Your task to perform on an android device: Open privacy settings Image 0: 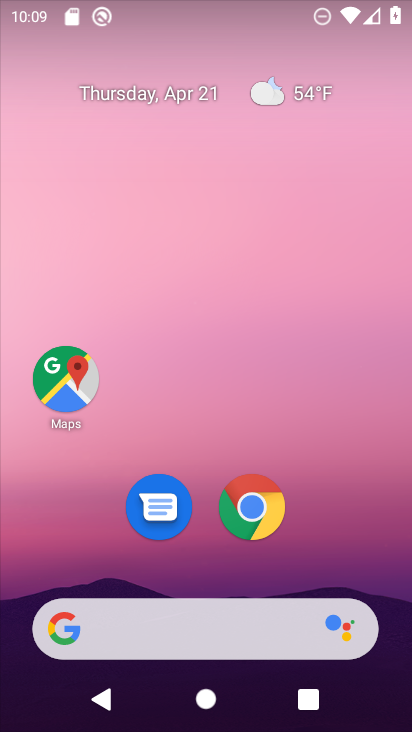
Step 0: drag from (205, 599) to (172, 347)
Your task to perform on an android device: Open privacy settings Image 1: 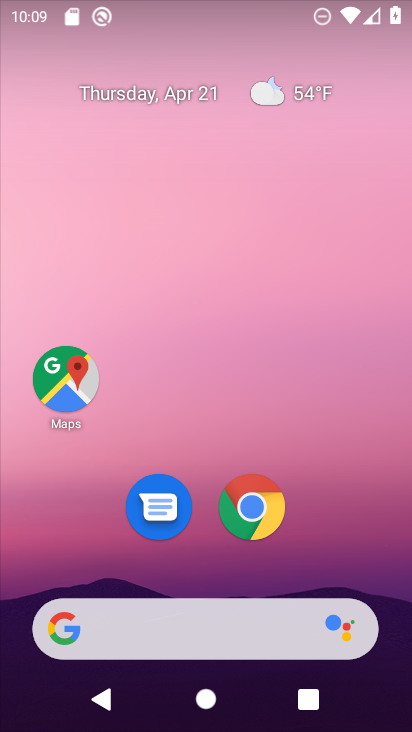
Step 1: click (184, 369)
Your task to perform on an android device: Open privacy settings Image 2: 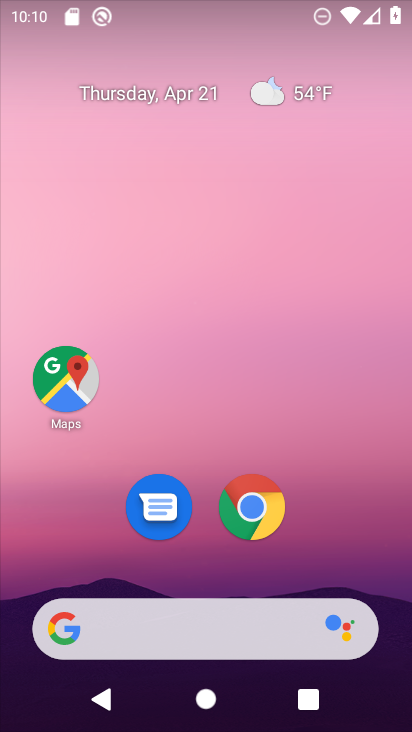
Step 2: drag from (176, 594) to (177, 175)
Your task to perform on an android device: Open privacy settings Image 3: 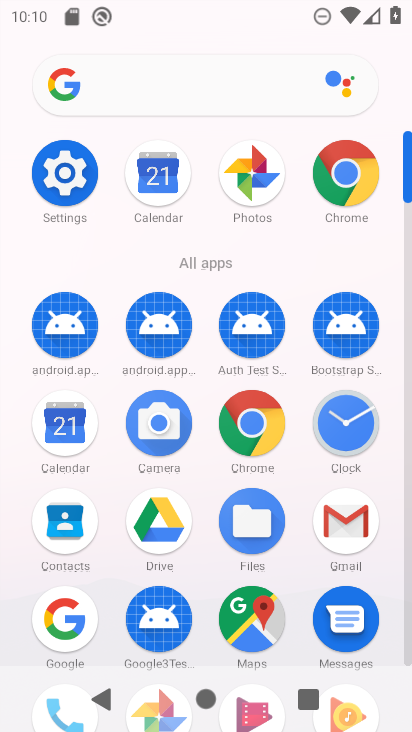
Step 3: click (57, 162)
Your task to perform on an android device: Open privacy settings Image 4: 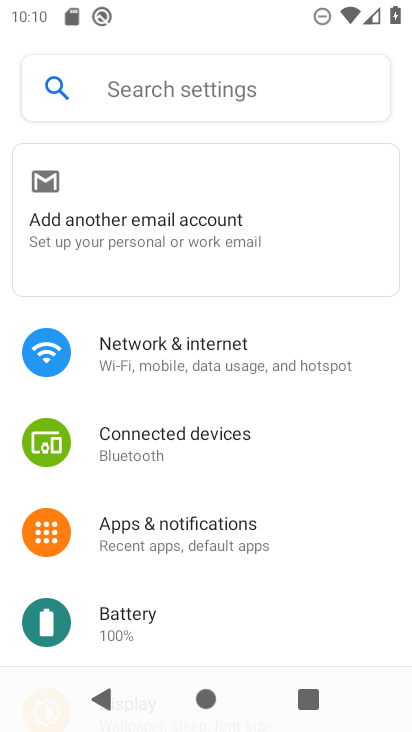
Step 4: drag from (195, 627) to (189, 372)
Your task to perform on an android device: Open privacy settings Image 5: 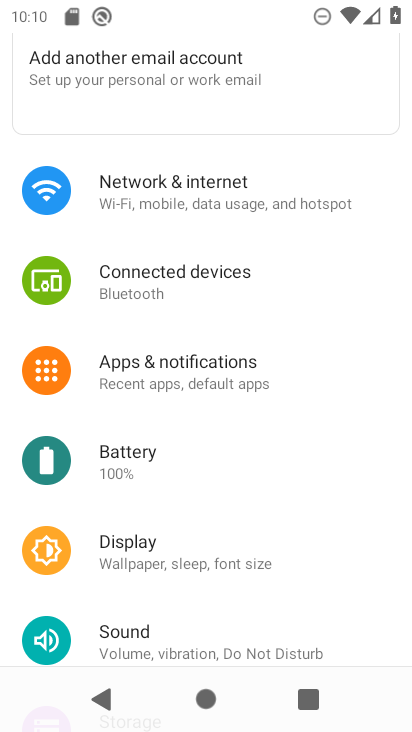
Step 5: drag from (245, 601) to (216, 337)
Your task to perform on an android device: Open privacy settings Image 6: 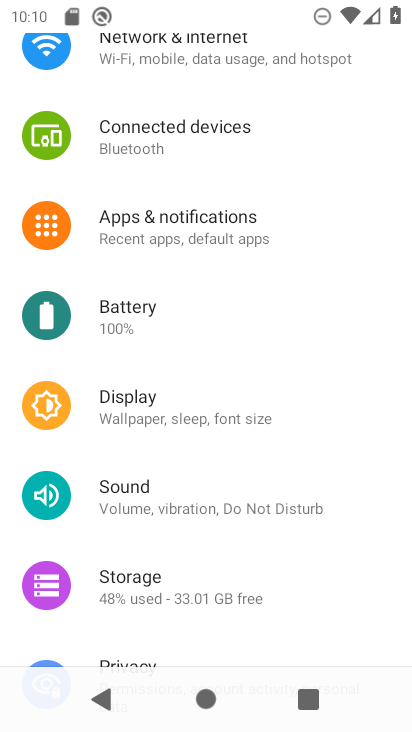
Step 6: drag from (223, 601) to (210, 334)
Your task to perform on an android device: Open privacy settings Image 7: 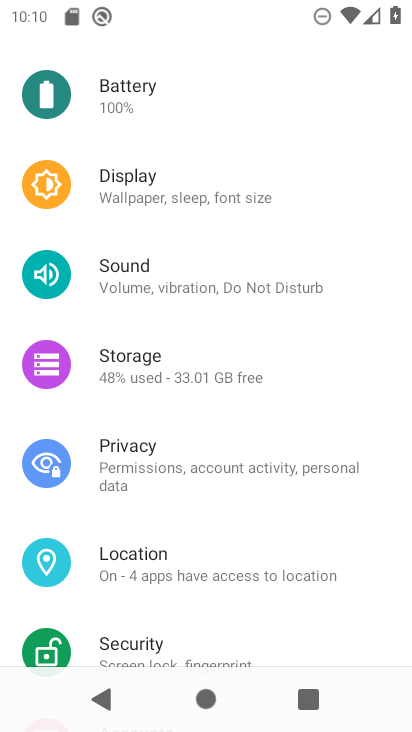
Step 7: click (140, 470)
Your task to perform on an android device: Open privacy settings Image 8: 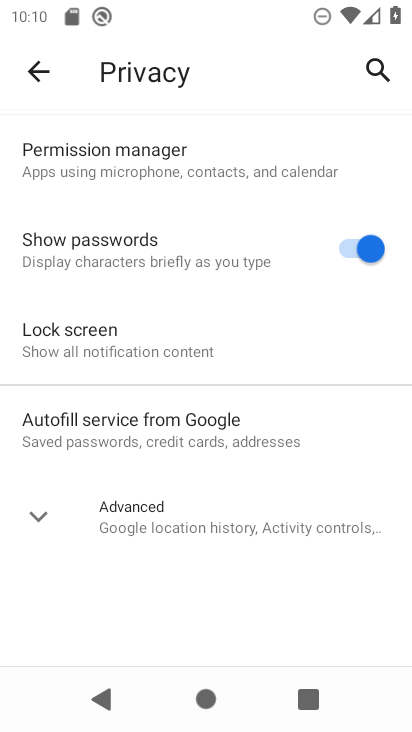
Step 8: click (142, 501)
Your task to perform on an android device: Open privacy settings Image 9: 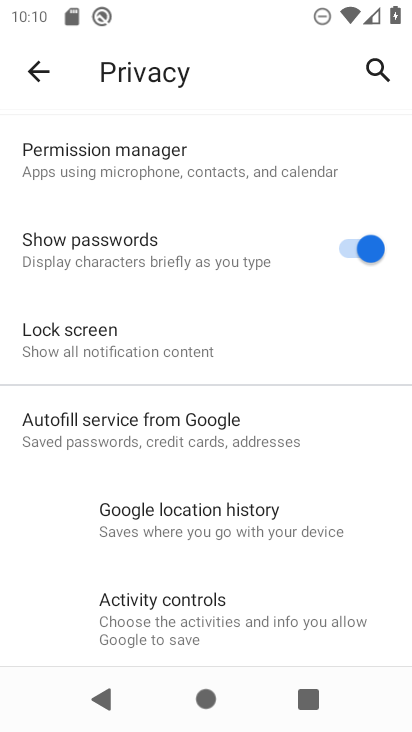
Step 9: task complete